Your task to perform on an android device: Clear the shopping cart on costco.com. Image 0: 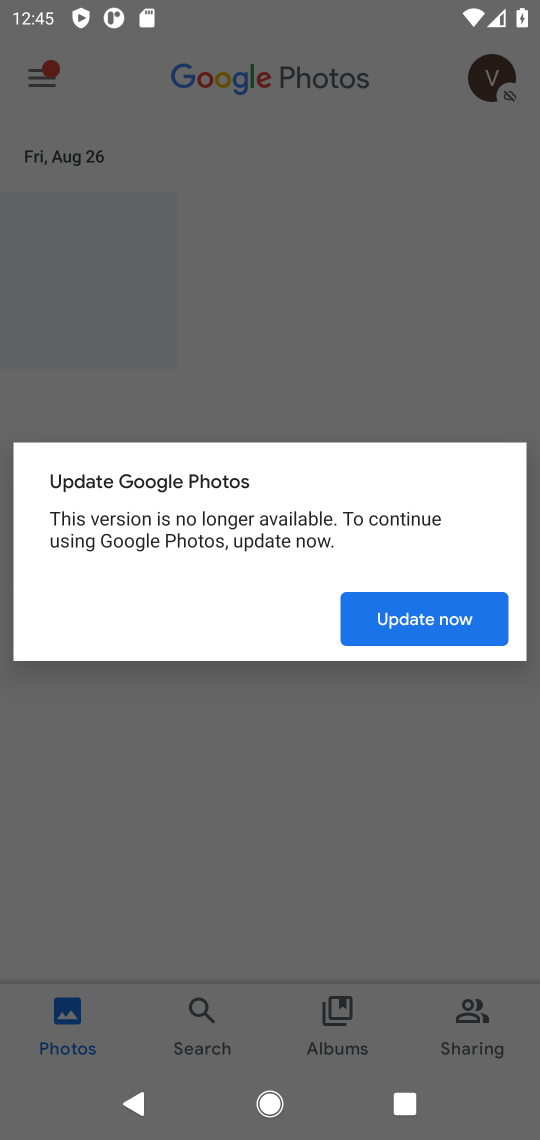
Step 0: press home button
Your task to perform on an android device: Clear the shopping cart on costco.com. Image 1: 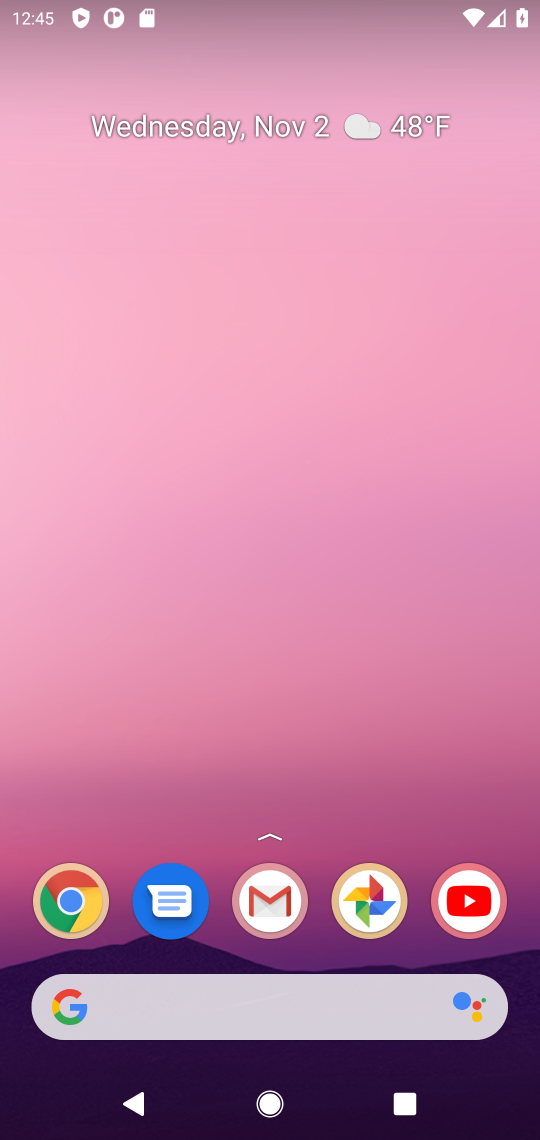
Step 1: drag from (320, 953) to (330, 196)
Your task to perform on an android device: Clear the shopping cart on costco.com. Image 2: 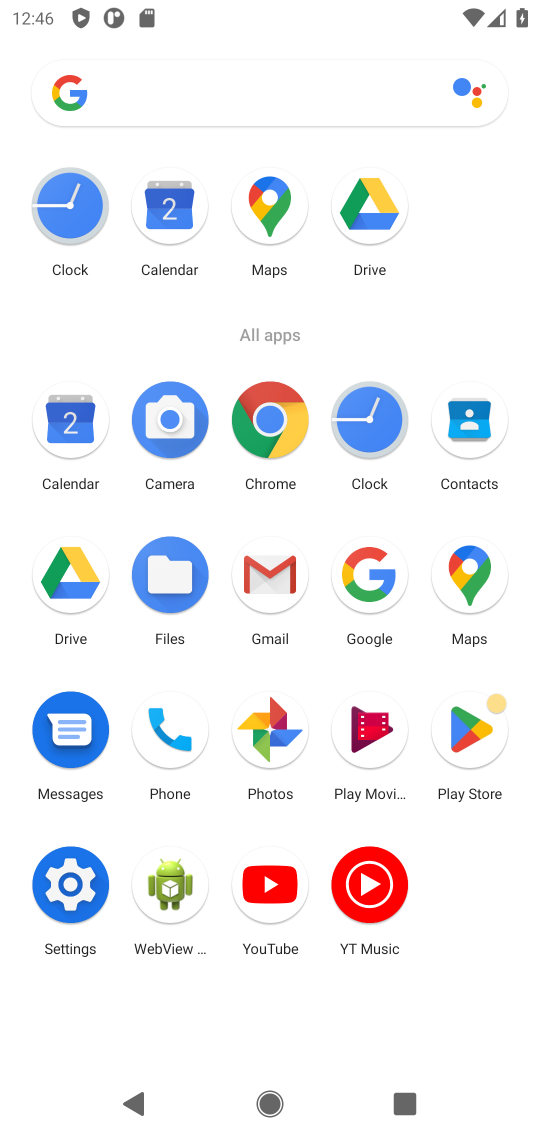
Step 2: click (268, 416)
Your task to perform on an android device: Clear the shopping cart on costco.com. Image 3: 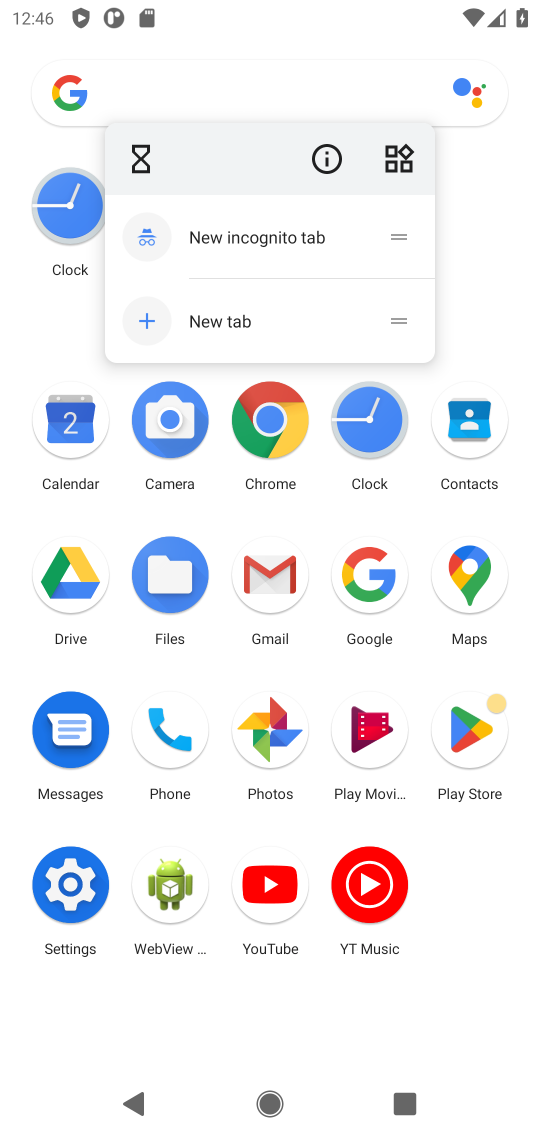
Step 3: click (280, 433)
Your task to perform on an android device: Clear the shopping cart on costco.com. Image 4: 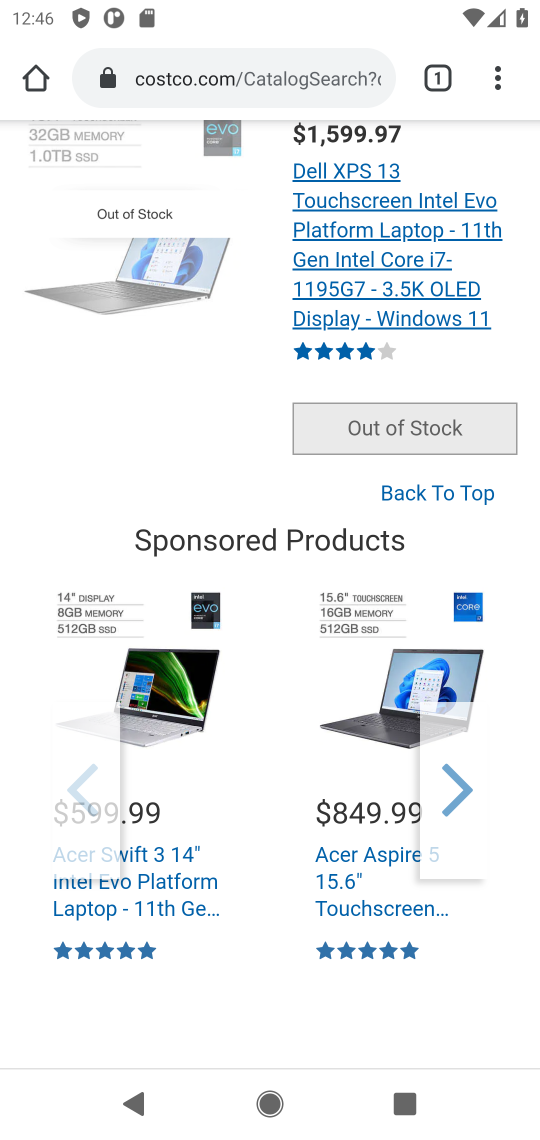
Step 4: click (232, 76)
Your task to perform on an android device: Clear the shopping cart on costco.com. Image 5: 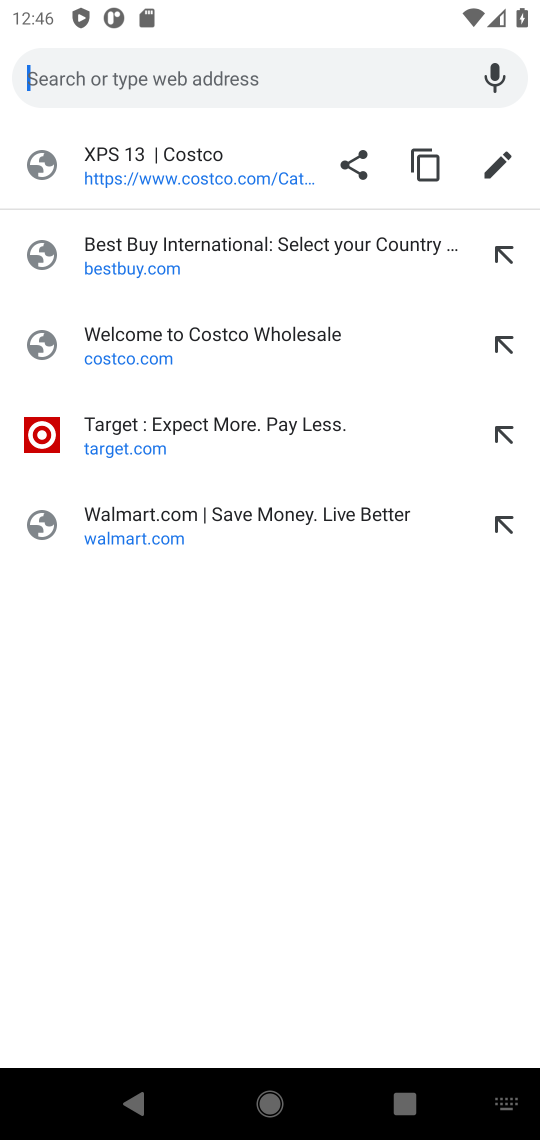
Step 5: type "costco.com"
Your task to perform on an android device: Clear the shopping cart on costco.com. Image 6: 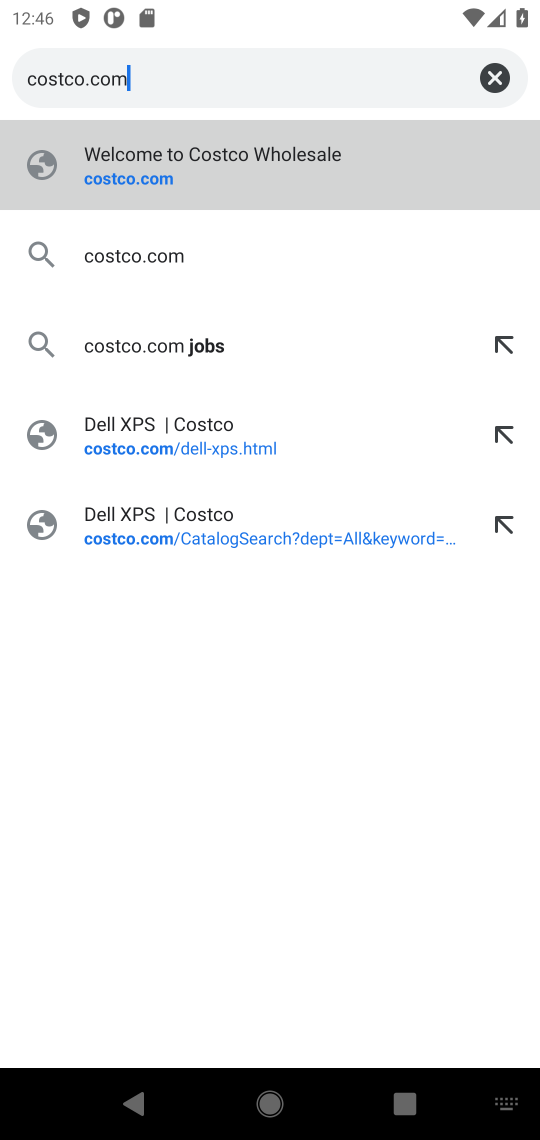
Step 6: press enter
Your task to perform on an android device: Clear the shopping cart on costco.com. Image 7: 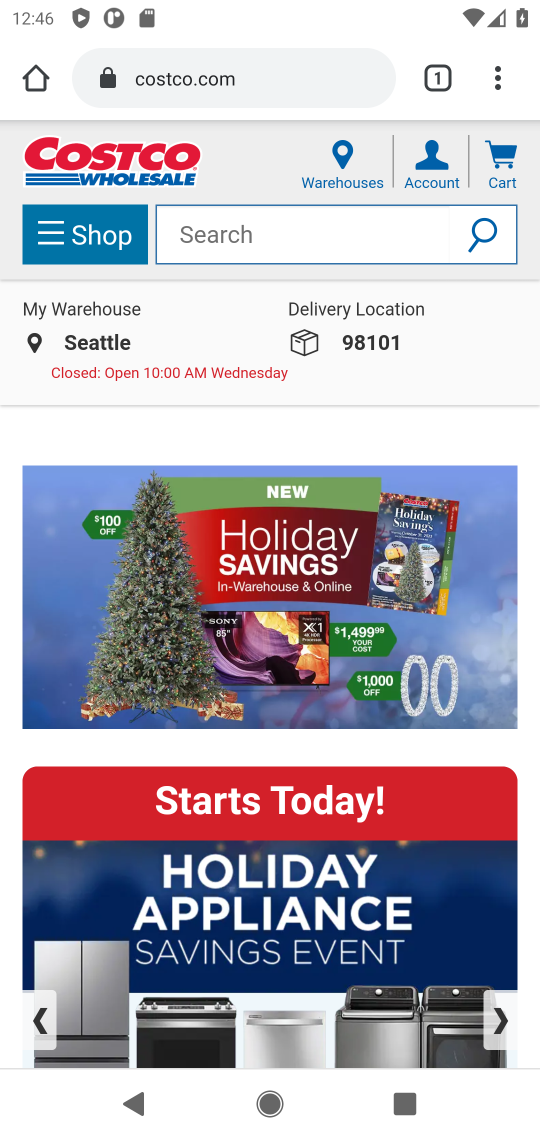
Step 7: click (509, 149)
Your task to perform on an android device: Clear the shopping cart on costco.com. Image 8: 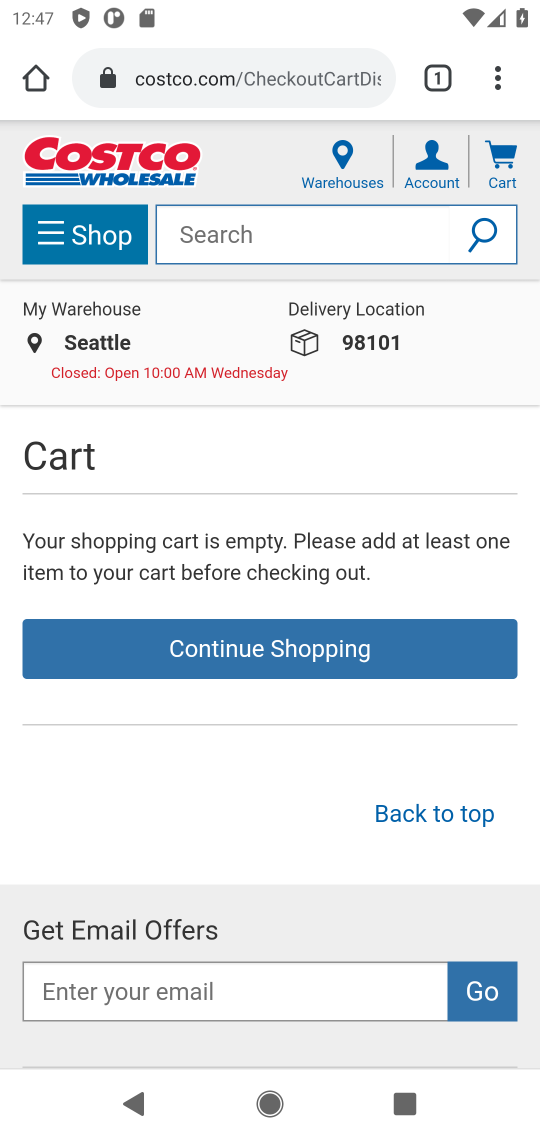
Step 8: task complete